Your task to perform on an android device: snooze an email in the gmail app Image 0: 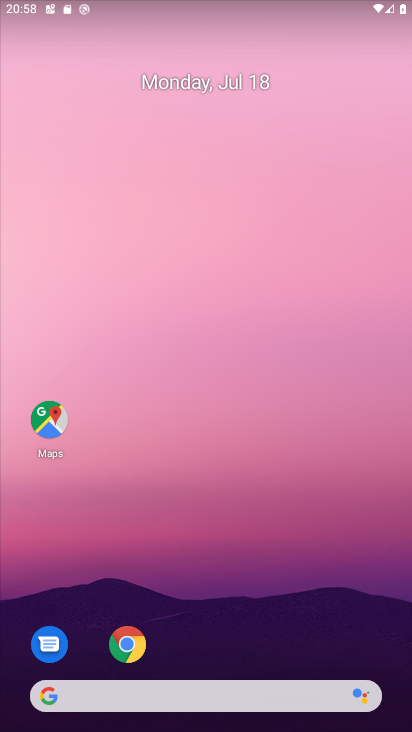
Step 0: drag from (236, 646) to (256, 95)
Your task to perform on an android device: snooze an email in the gmail app Image 1: 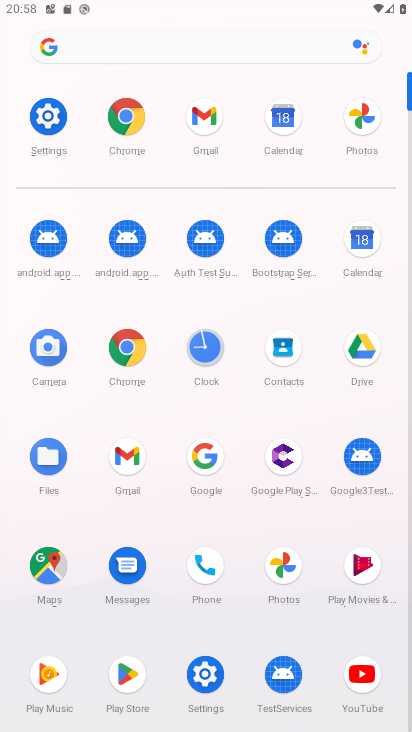
Step 1: click (218, 134)
Your task to perform on an android device: snooze an email in the gmail app Image 2: 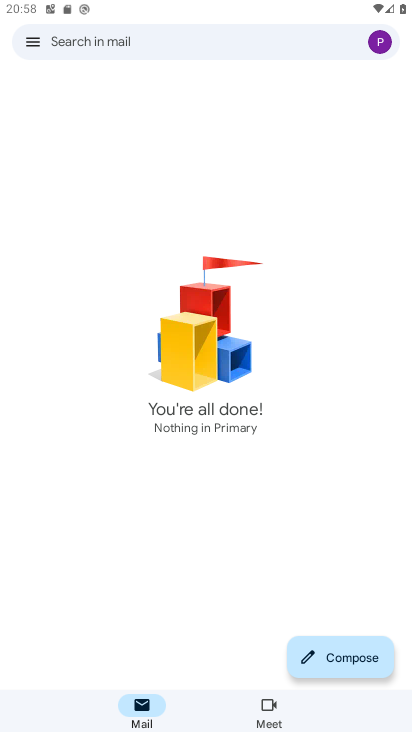
Step 2: task complete